Your task to perform on an android device: What's the weather? Image 0: 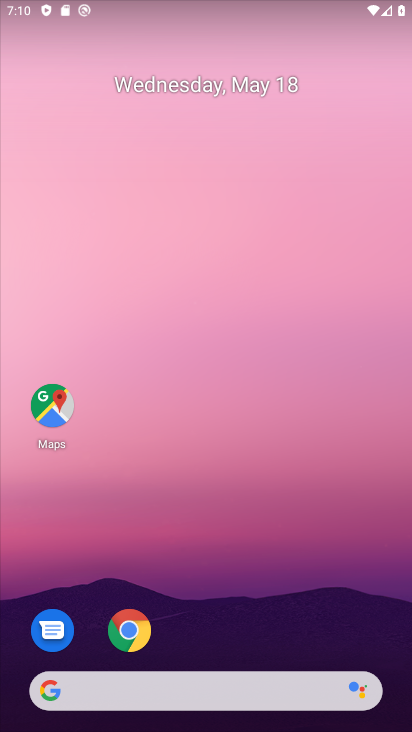
Step 0: click (198, 679)
Your task to perform on an android device: What's the weather? Image 1: 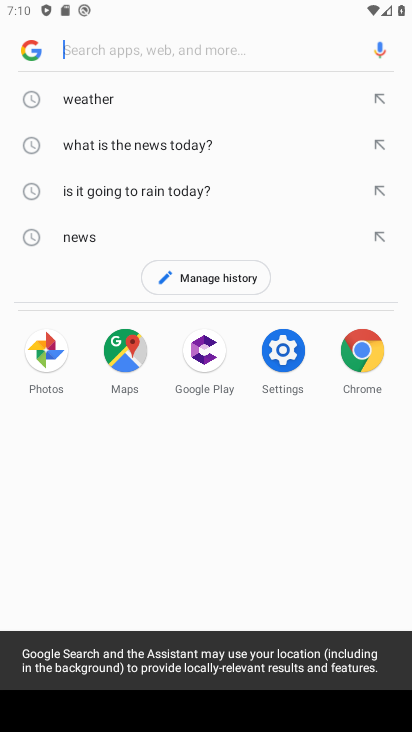
Step 1: click (95, 94)
Your task to perform on an android device: What's the weather? Image 2: 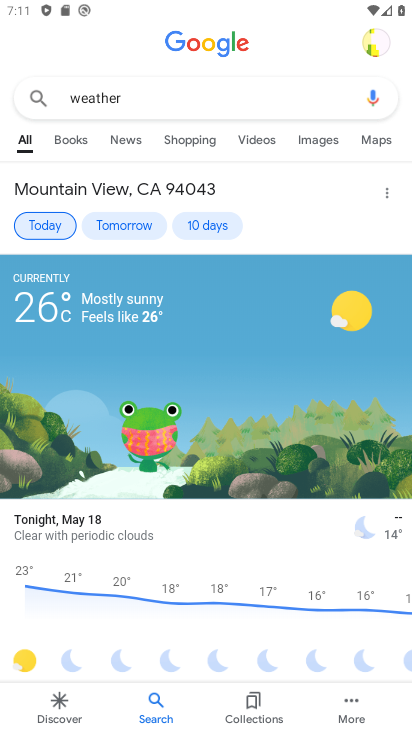
Step 2: task complete